Your task to perform on an android device: see creations saved in the google photos Image 0: 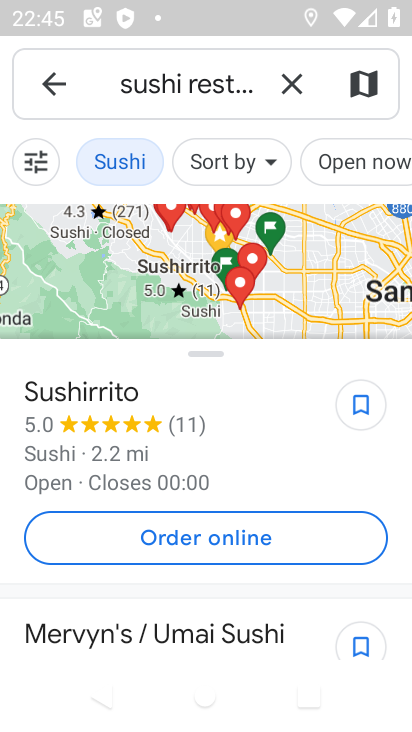
Step 0: press home button
Your task to perform on an android device: see creations saved in the google photos Image 1: 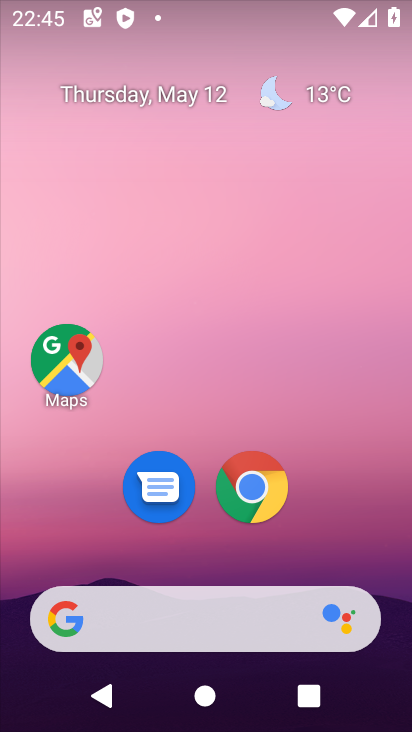
Step 1: drag from (198, 541) to (172, 223)
Your task to perform on an android device: see creations saved in the google photos Image 2: 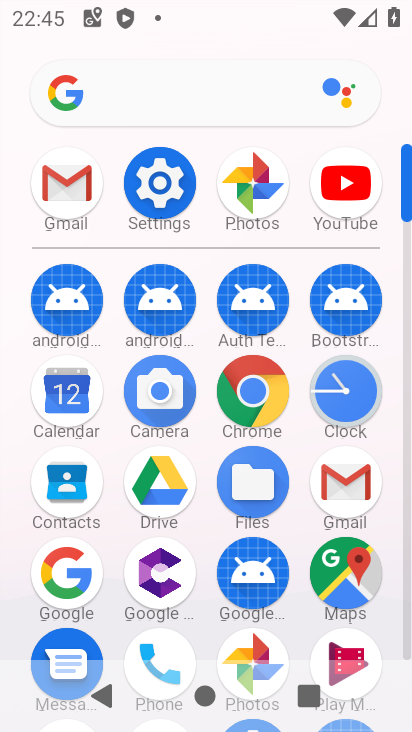
Step 2: click (235, 176)
Your task to perform on an android device: see creations saved in the google photos Image 3: 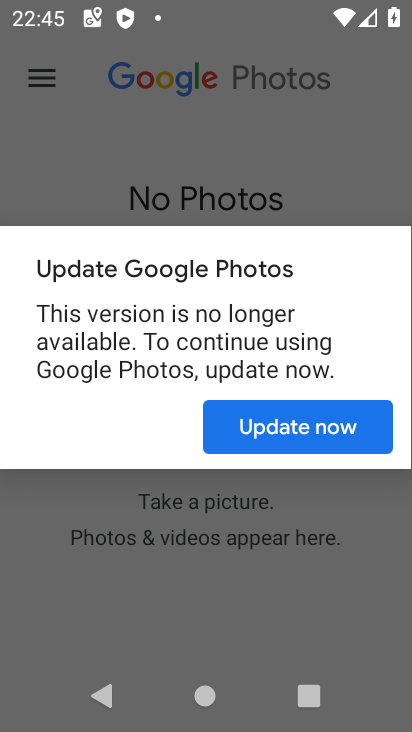
Step 3: click (325, 442)
Your task to perform on an android device: see creations saved in the google photos Image 4: 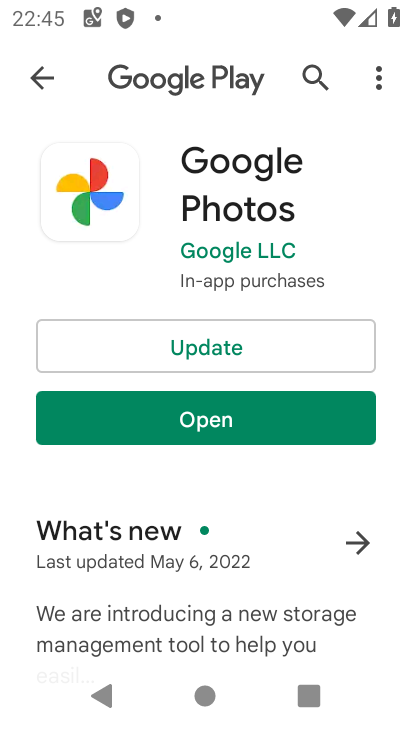
Step 4: click (236, 410)
Your task to perform on an android device: see creations saved in the google photos Image 5: 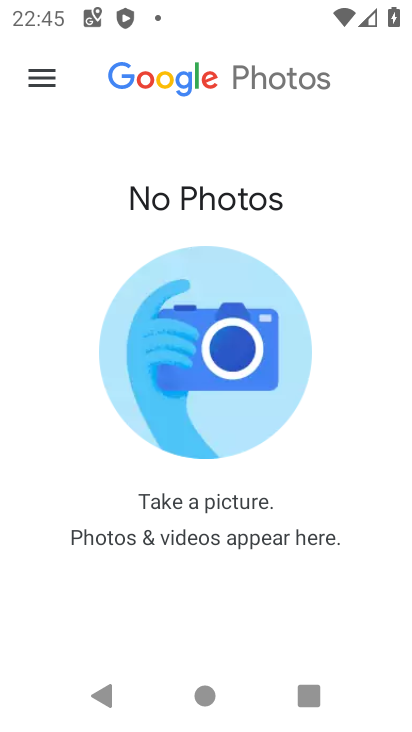
Step 5: drag from (188, 616) to (268, 321)
Your task to perform on an android device: see creations saved in the google photos Image 6: 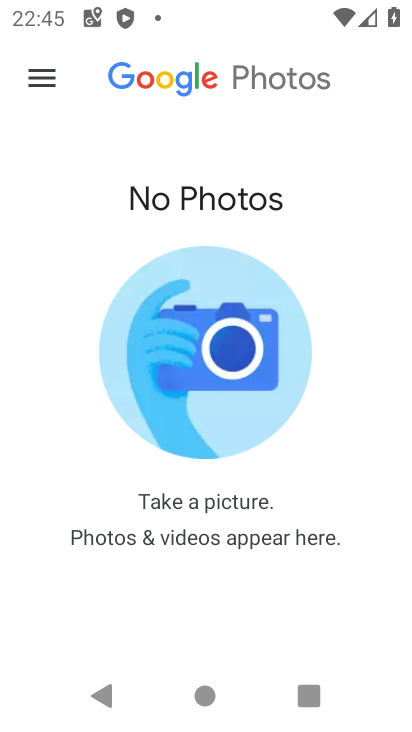
Step 6: click (33, 96)
Your task to perform on an android device: see creations saved in the google photos Image 7: 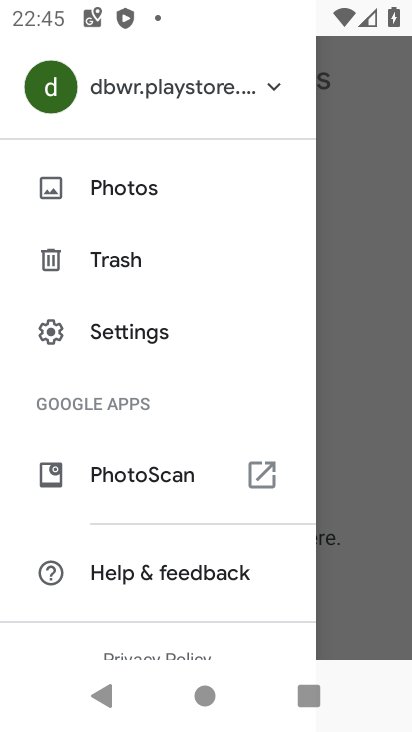
Step 7: click (123, 195)
Your task to perform on an android device: see creations saved in the google photos Image 8: 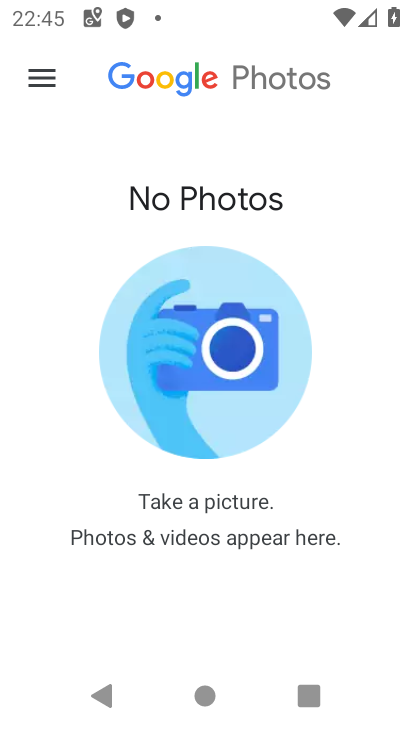
Step 8: task complete